Your task to perform on an android device: Open Chrome and go to the settings page Image 0: 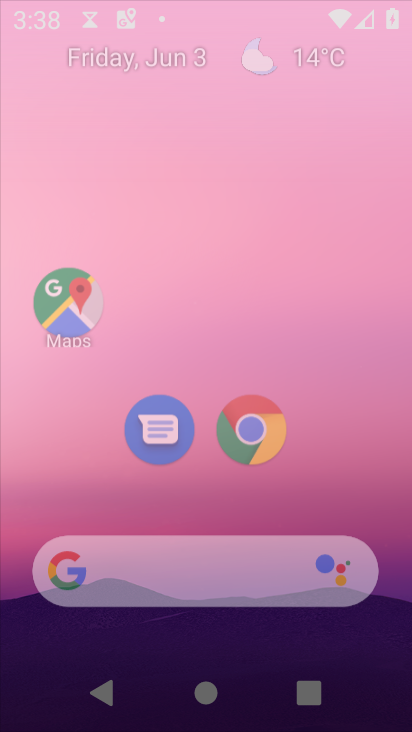
Step 0: drag from (292, 448) to (242, 86)
Your task to perform on an android device: Open Chrome and go to the settings page Image 1: 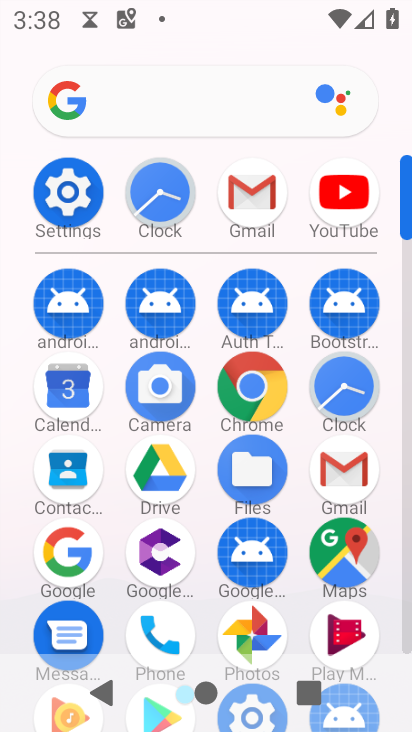
Step 1: click (238, 392)
Your task to perform on an android device: Open Chrome and go to the settings page Image 2: 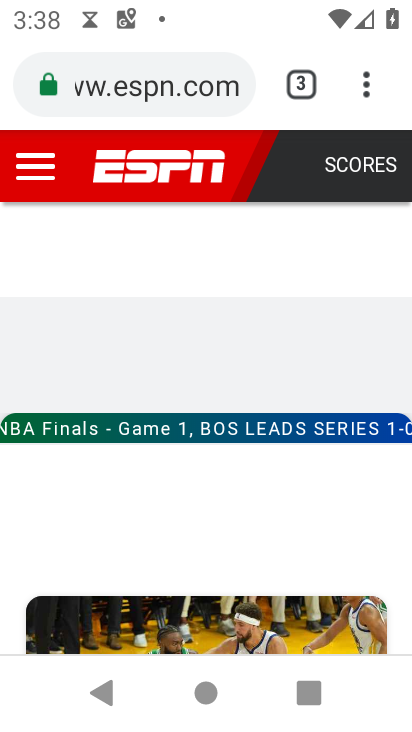
Step 2: click (378, 69)
Your task to perform on an android device: Open Chrome and go to the settings page Image 3: 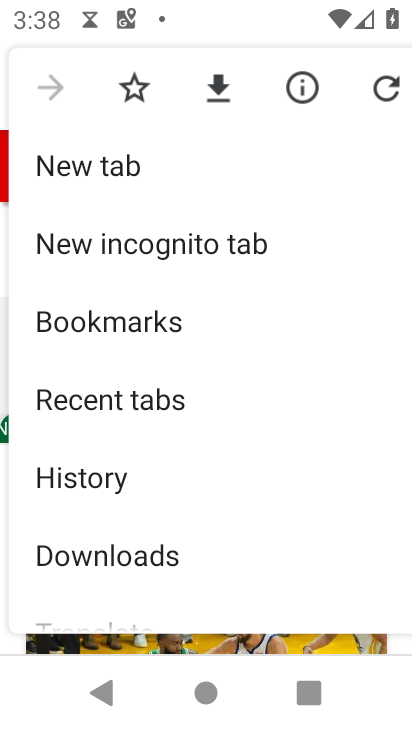
Step 3: drag from (262, 512) to (220, 107)
Your task to perform on an android device: Open Chrome and go to the settings page Image 4: 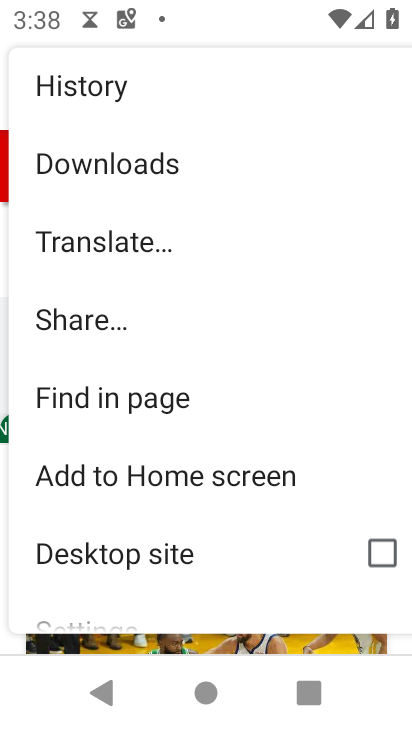
Step 4: drag from (177, 454) to (185, 97)
Your task to perform on an android device: Open Chrome and go to the settings page Image 5: 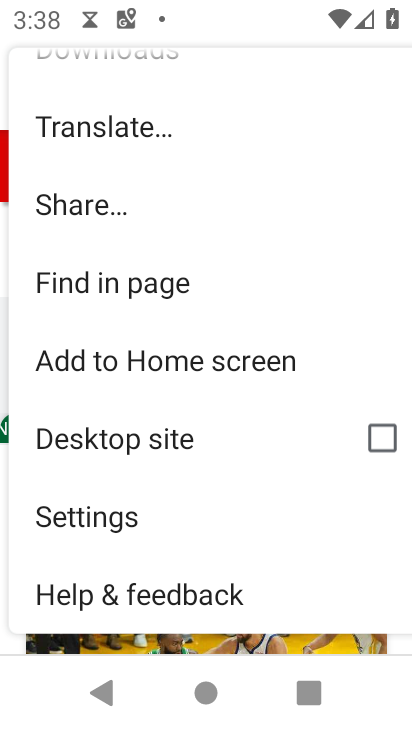
Step 5: click (93, 514)
Your task to perform on an android device: Open Chrome and go to the settings page Image 6: 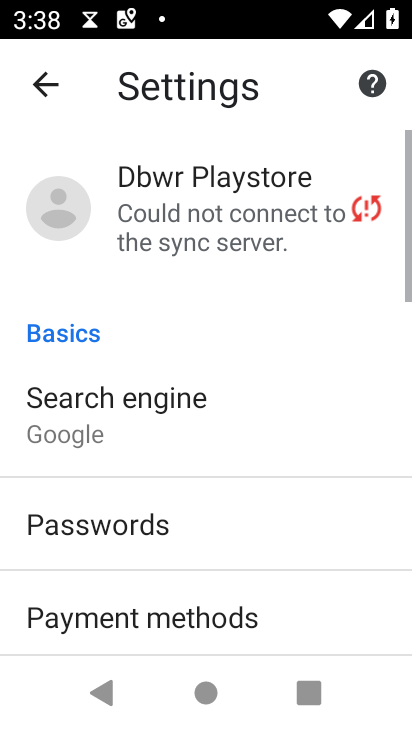
Step 6: task complete